Your task to perform on an android device: turn on translation in the chrome app Image 0: 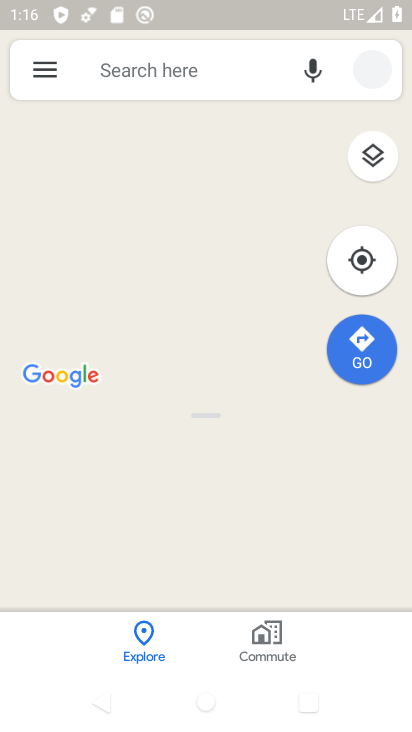
Step 0: press home button
Your task to perform on an android device: turn on translation in the chrome app Image 1: 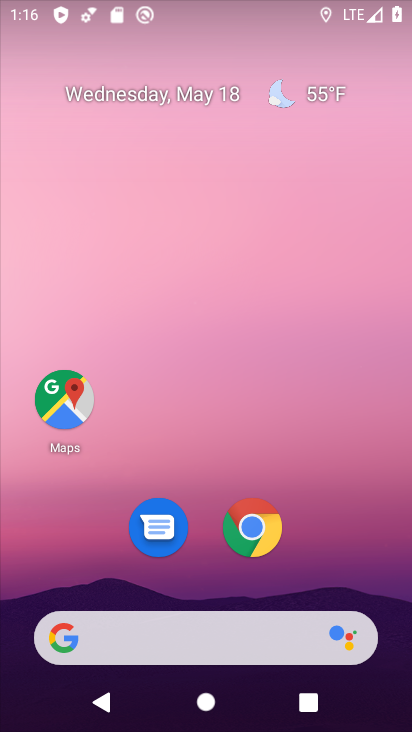
Step 1: click (246, 539)
Your task to perform on an android device: turn on translation in the chrome app Image 2: 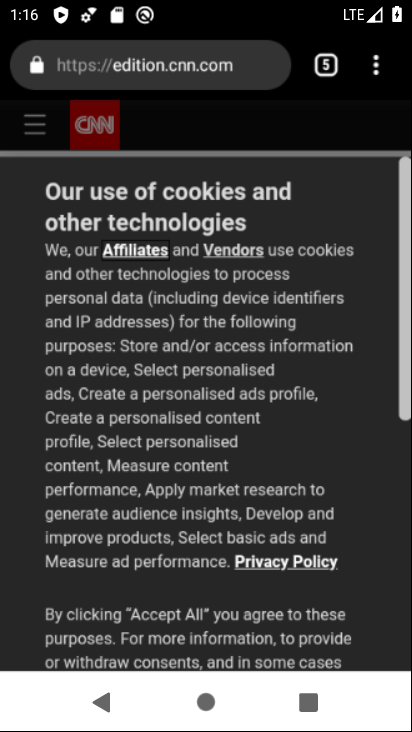
Step 2: click (378, 58)
Your task to perform on an android device: turn on translation in the chrome app Image 3: 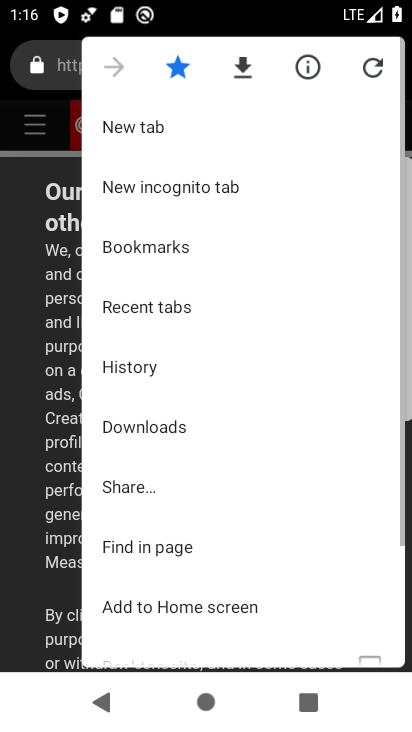
Step 3: drag from (254, 522) to (254, 154)
Your task to perform on an android device: turn on translation in the chrome app Image 4: 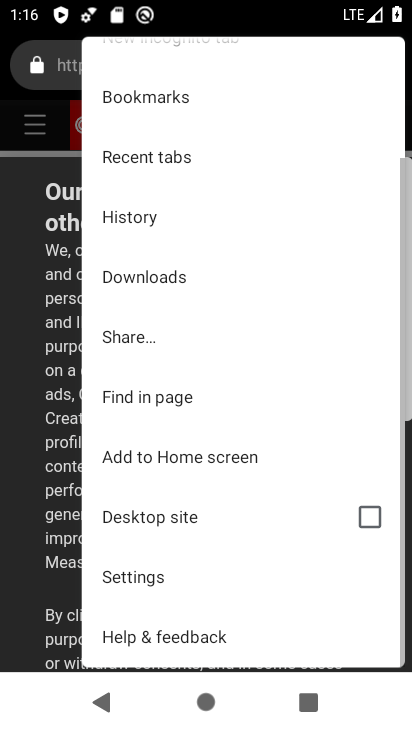
Step 4: click (169, 578)
Your task to perform on an android device: turn on translation in the chrome app Image 5: 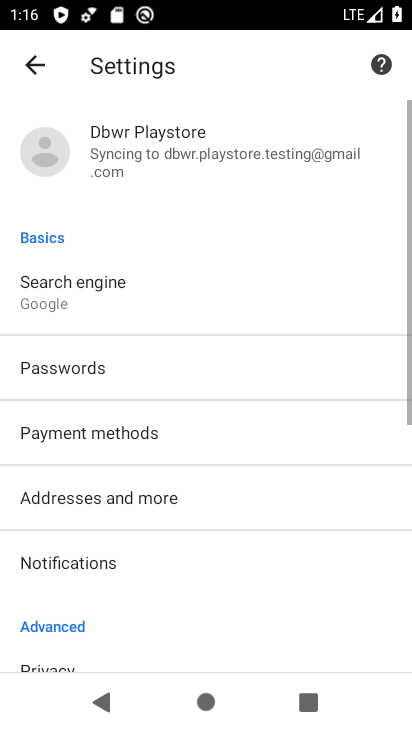
Step 5: drag from (232, 541) to (232, 279)
Your task to perform on an android device: turn on translation in the chrome app Image 6: 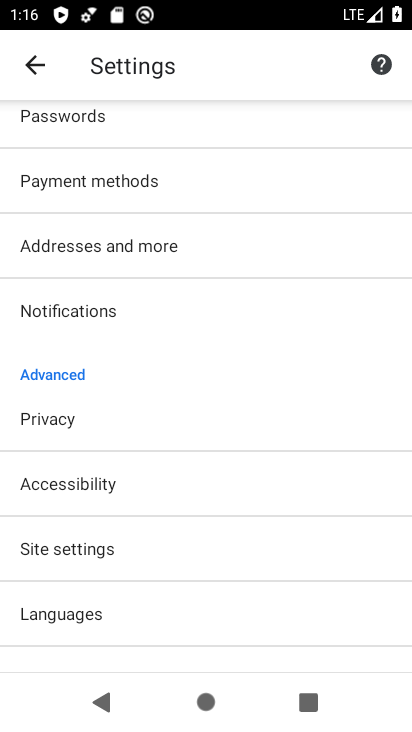
Step 6: click (149, 604)
Your task to perform on an android device: turn on translation in the chrome app Image 7: 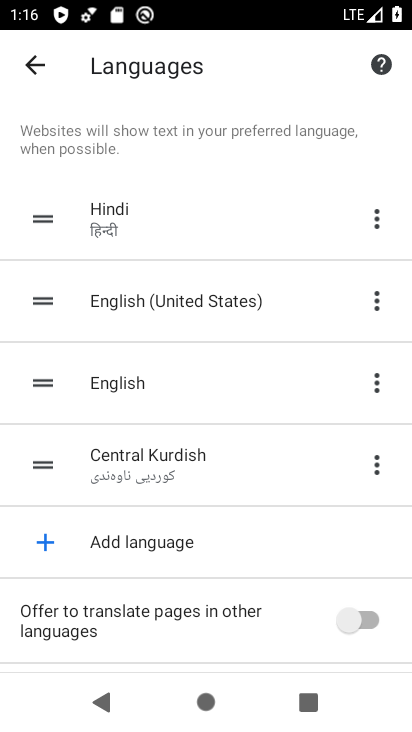
Step 7: click (358, 618)
Your task to perform on an android device: turn on translation in the chrome app Image 8: 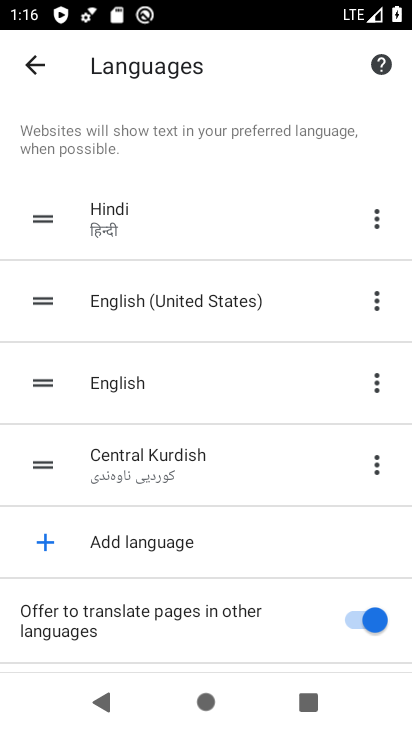
Step 8: task complete